Your task to perform on an android device: Go to notification settings Image 0: 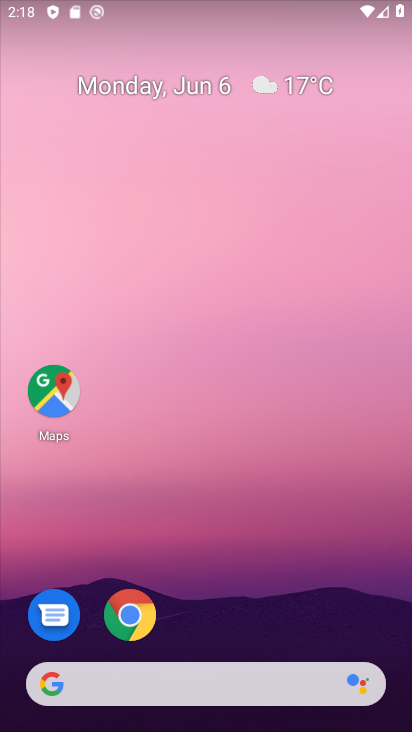
Step 0: drag from (191, 604) to (322, 21)
Your task to perform on an android device: Go to notification settings Image 1: 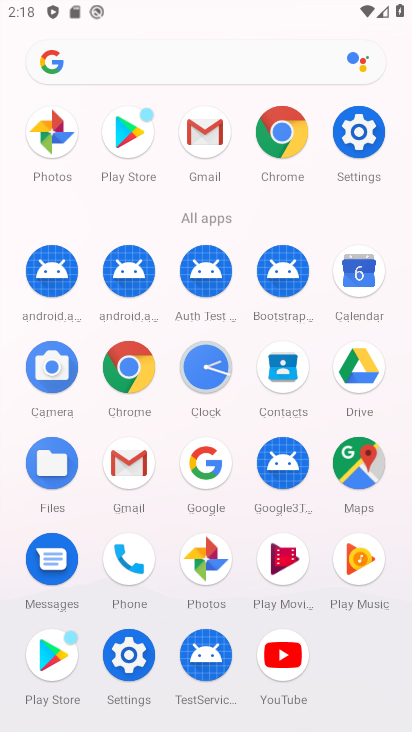
Step 1: click (125, 666)
Your task to perform on an android device: Go to notification settings Image 2: 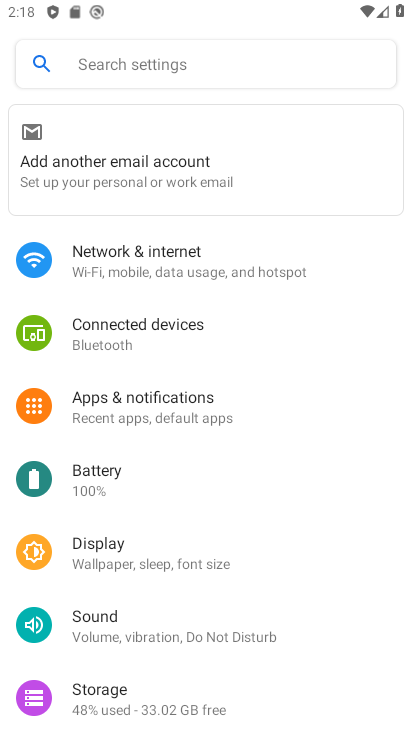
Step 2: click (172, 405)
Your task to perform on an android device: Go to notification settings Image 3: 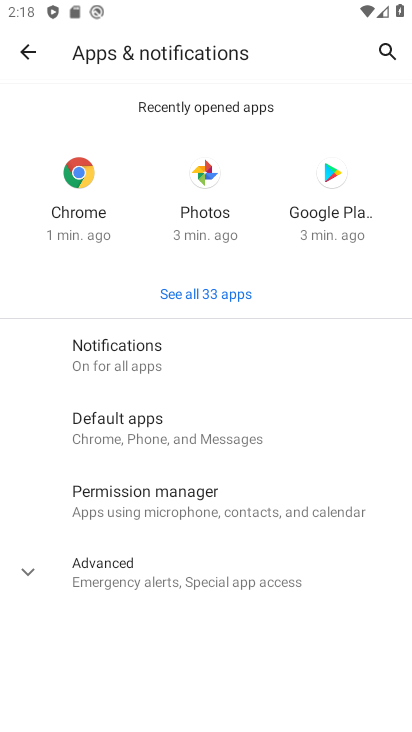
Step 3: click (128, 365)
Your task to perform on an android device: Go to notification settings Image 4: 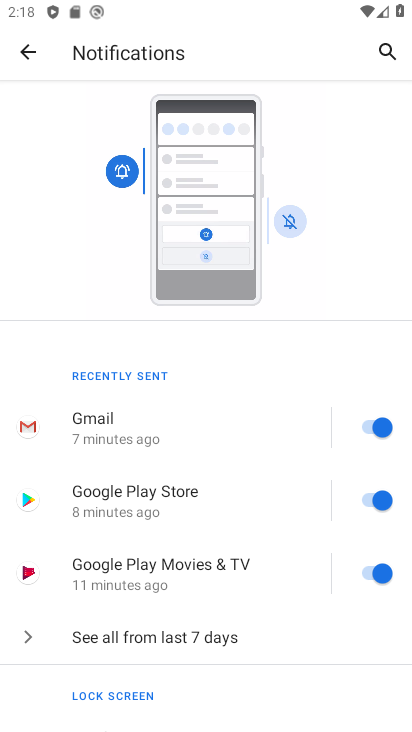
Step 4: task complete